Your task to perform on an android device: Open calendar and show me the second week of next month Image 0: 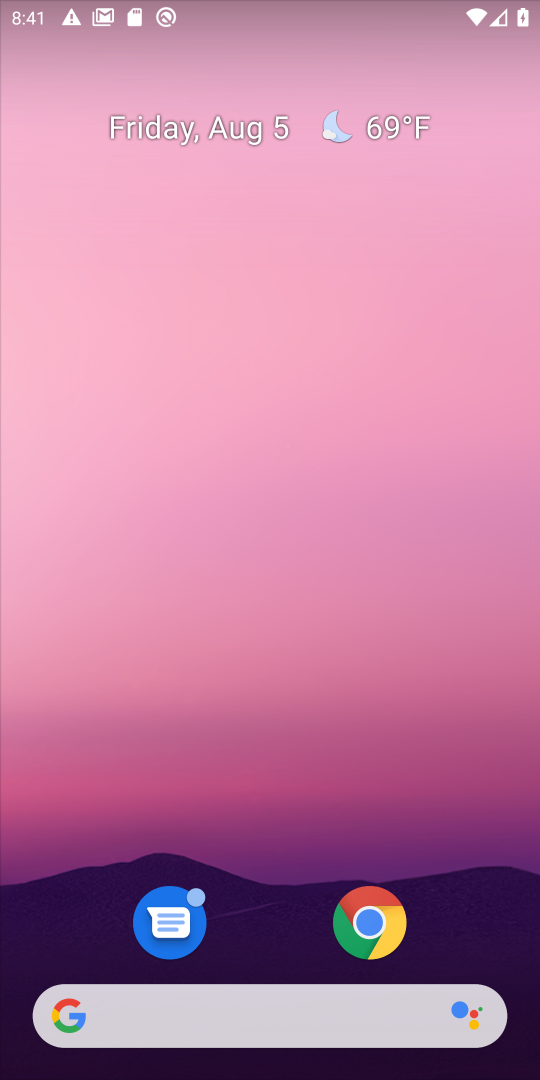
Step 0: drag from (286, 931) to (245, 395)
Your task to perform on an android device: Open calendar and show me the second week of next month Image 1: 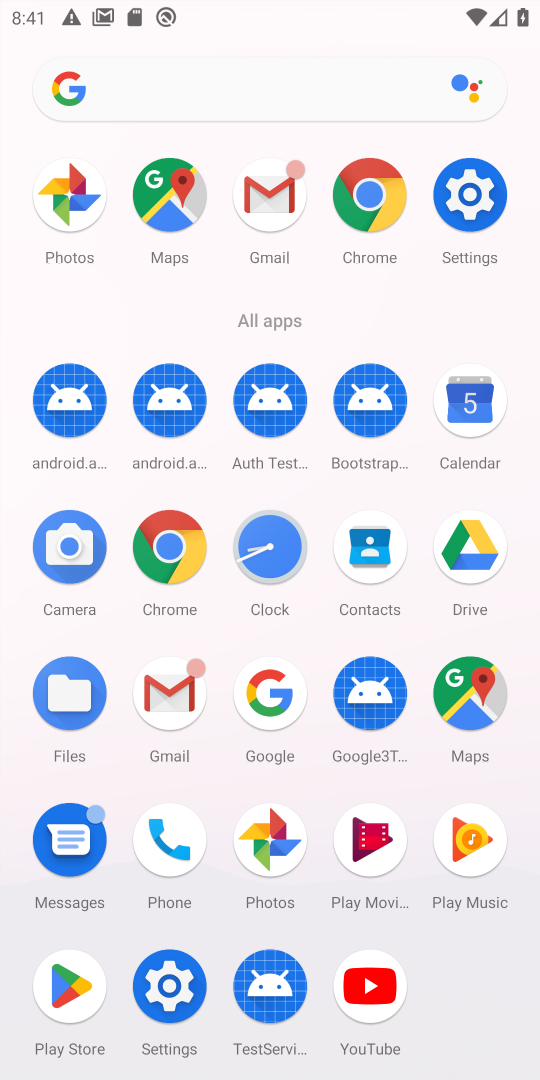
Step 1: click (467, 419)
Your task to perform on an android device: Open calendar and show me the second week of next month Image 2: 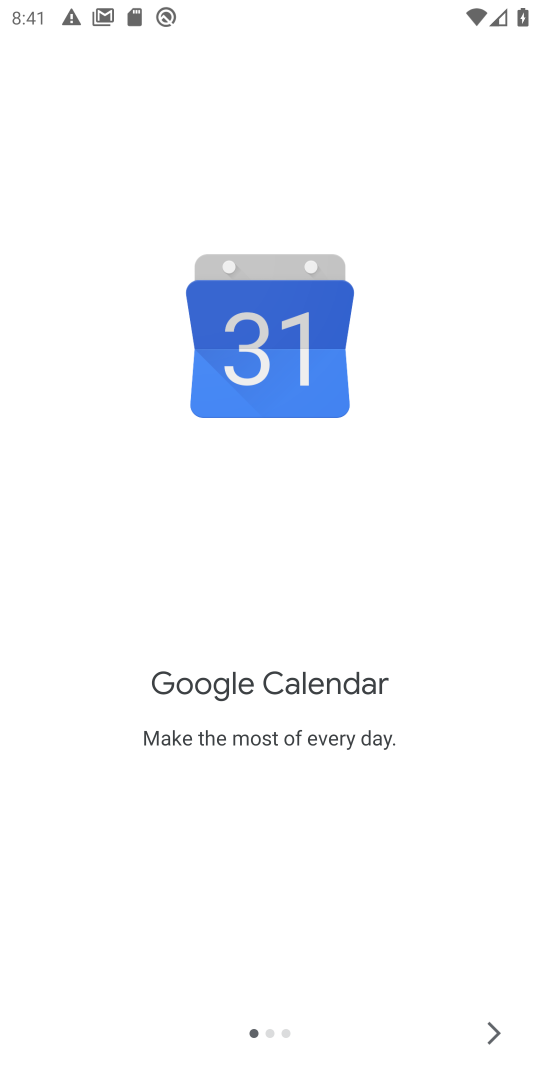
Step 2: click (481, 1050)
Your task to perform on an android device: Open calendar and show me the second week of next month Image 3: 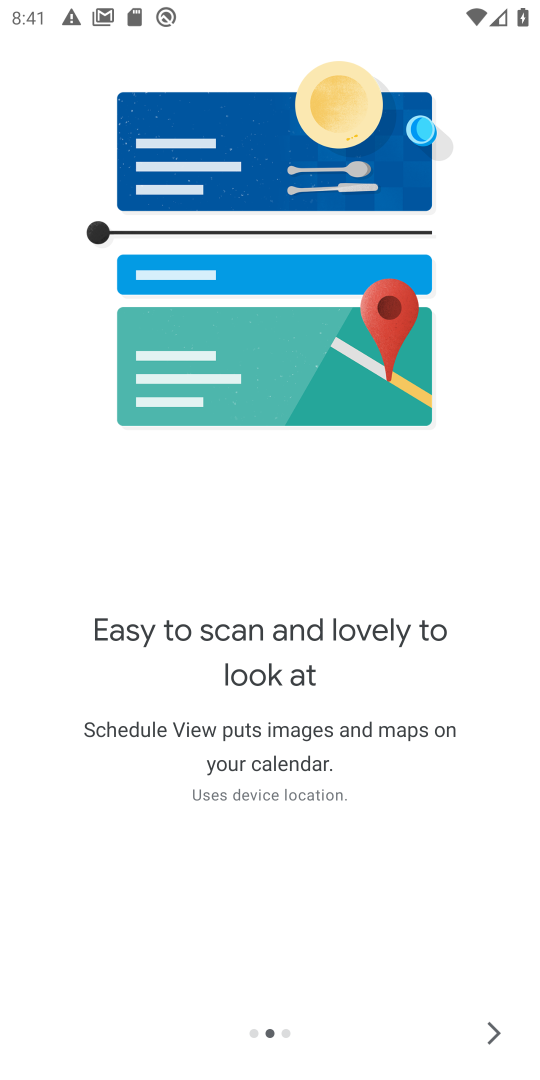
Step 3: click (481, 1050)
Your task to perform on an android device: Open calendar and show me the second week of next month Image 4: 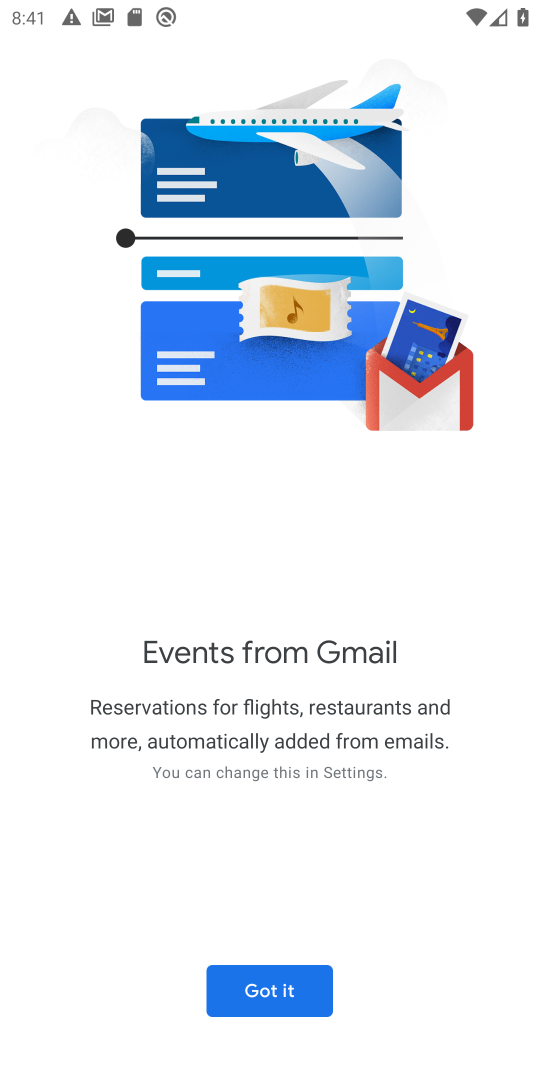
Step 4: click (255, 989)
Your task to perform on an android device: Open calendar and show me the second week of next month Image 5: 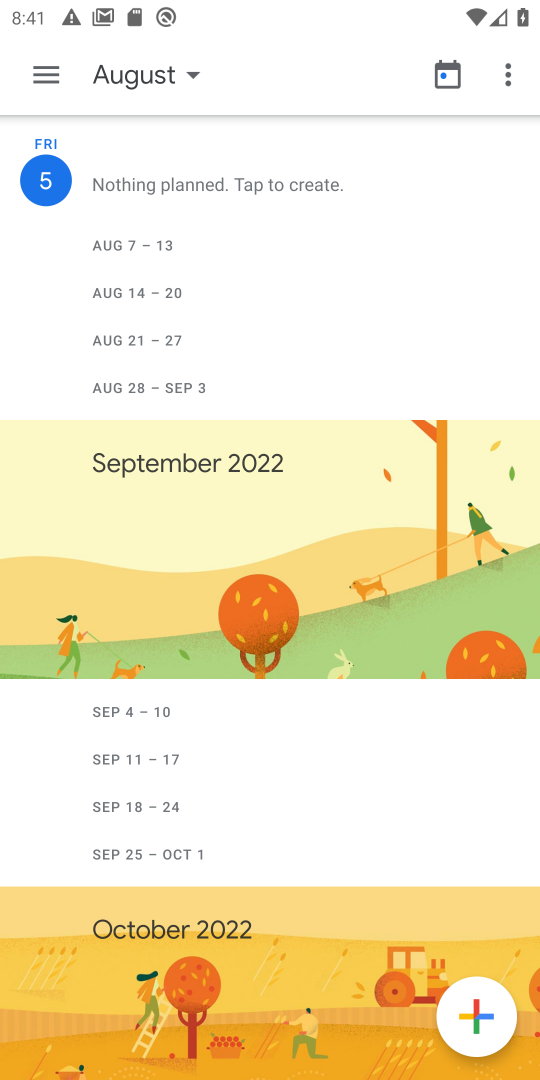
Step 5: click (50, 87)
Your task to perform on an android device: Open calendar and show me the second week of next month Image 6: 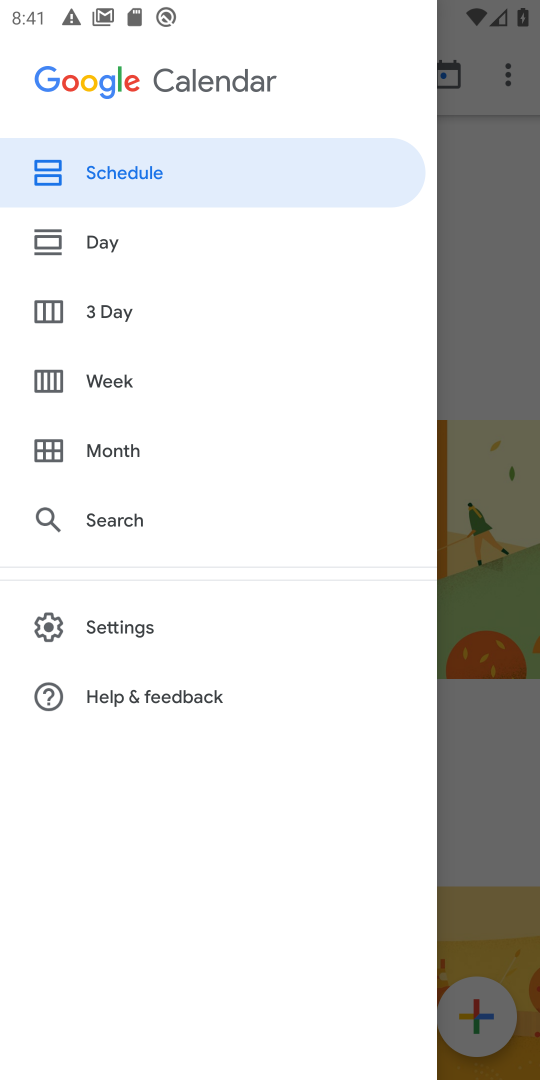
Step 6: click (121, 392)
Your task to perform on an android device: Open calendar and show me the second week of next month Image 7: 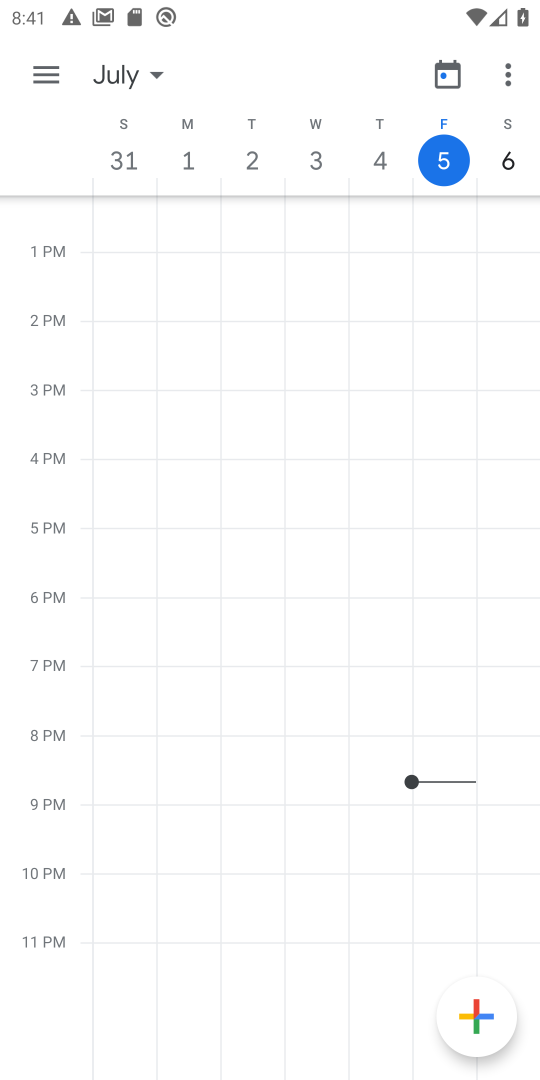
Step 7: drag from (397, 182) to (144, 148)
Your task to perform on an android device: Open calendar and show me the second week of next month Image 8: 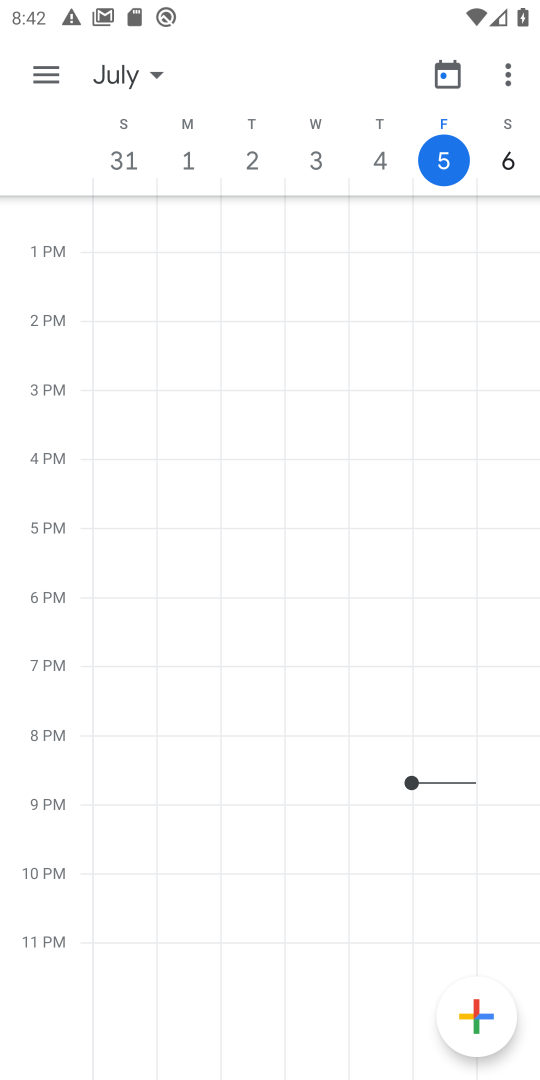
Step 8: click (150, 69)
Your task to perform on an android device: Open calendar and show me the second week of next month Image 9: 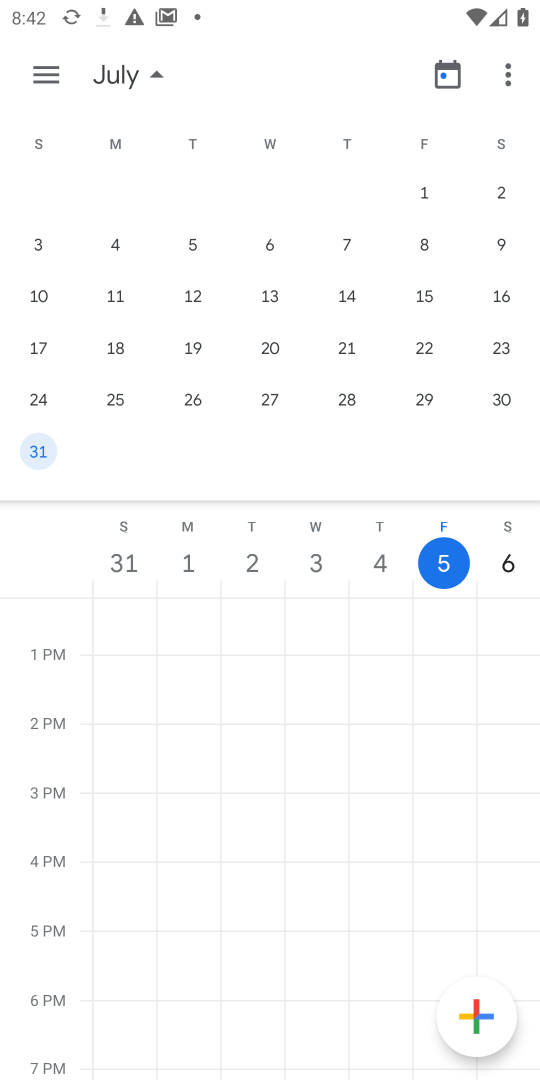
Step 9: drag from (495, 374) to (37, 372)
Your task to perform on an android device: Open calendar and show me the second week of next month Image 10: 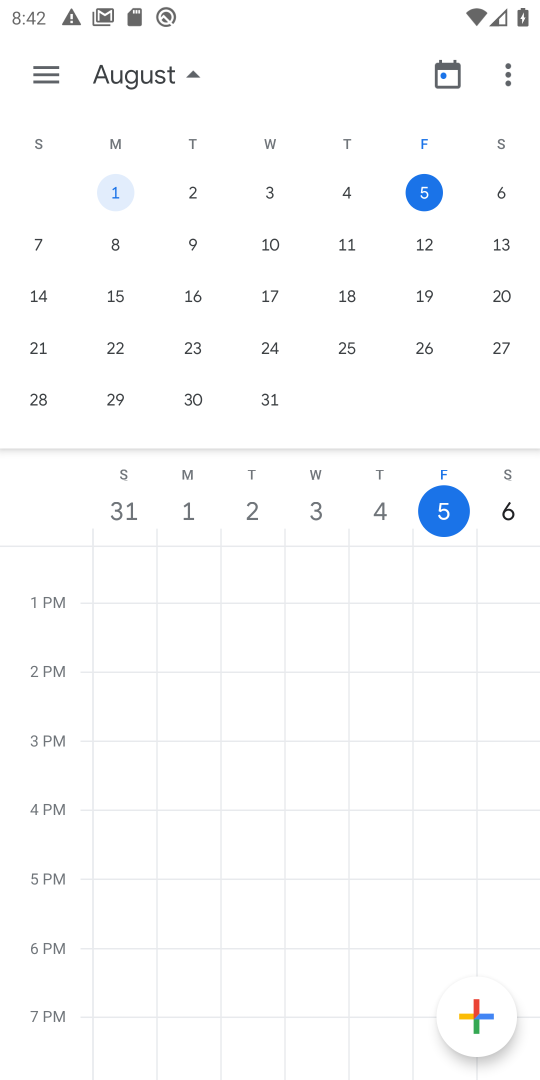
Step 10: drag from (515, 397) to (18, 367)
Your task to perform on an android device: Open calendar and show me the second week of next month Image 11: 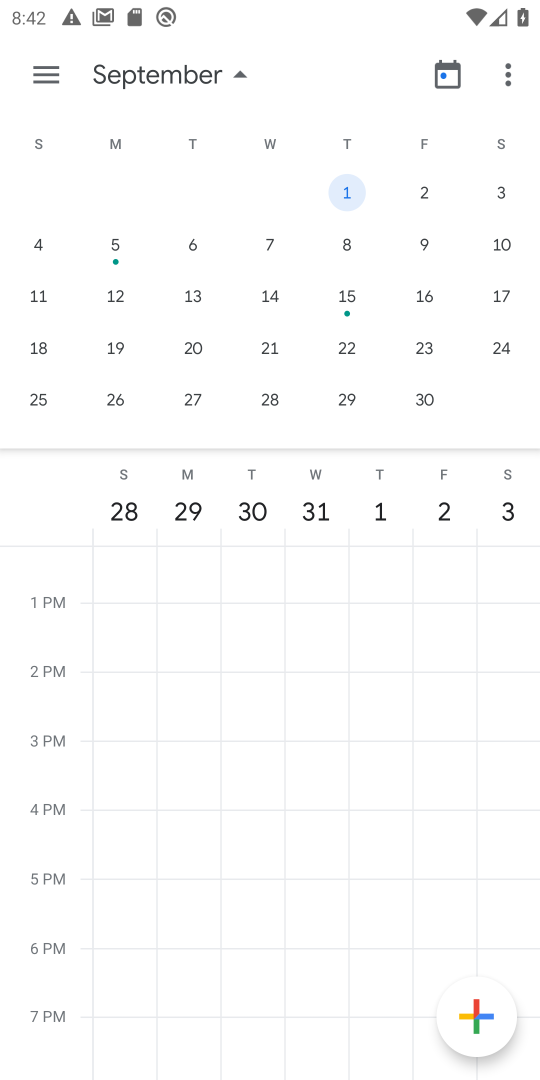
Step 11: click (264, 296)
Your task to perform on an android device: Open calendar and show me the second week of next month Image 12: 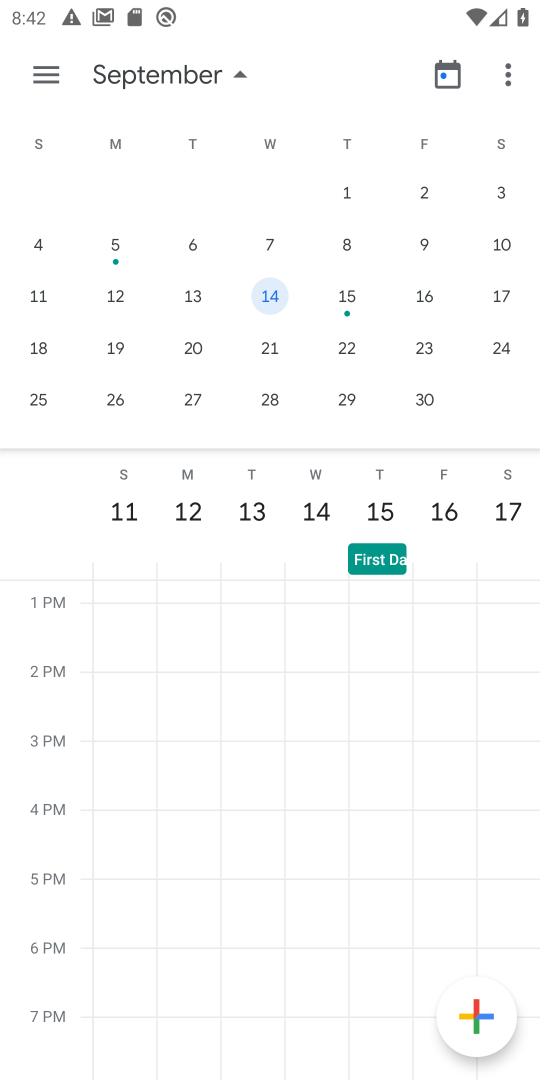
Step 12: task complete